Your task to perform on an android device: Search for seafood restaurants on Google Maps Image 0: 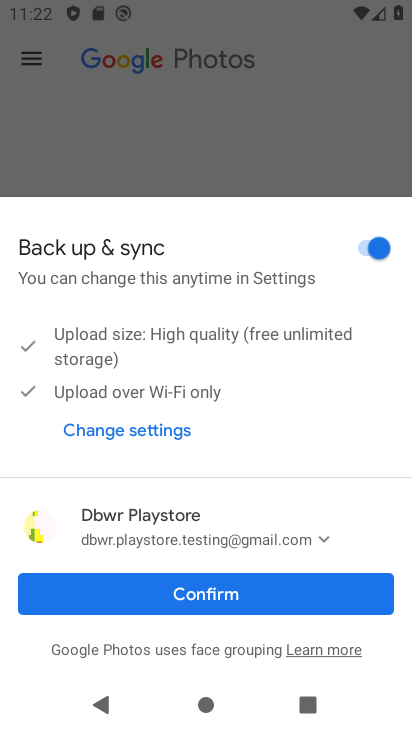
Step 0: press home button
Your task to perform on an android device: Search for seafood restaurants on Google Maps Image 1: 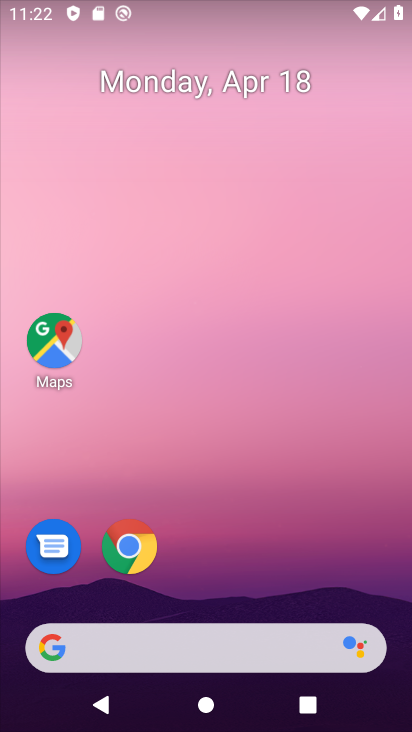
Step 1: click (50, 344)
Your task to perform on an android device: Search for seafood restaurants on Google Maps Image 2: 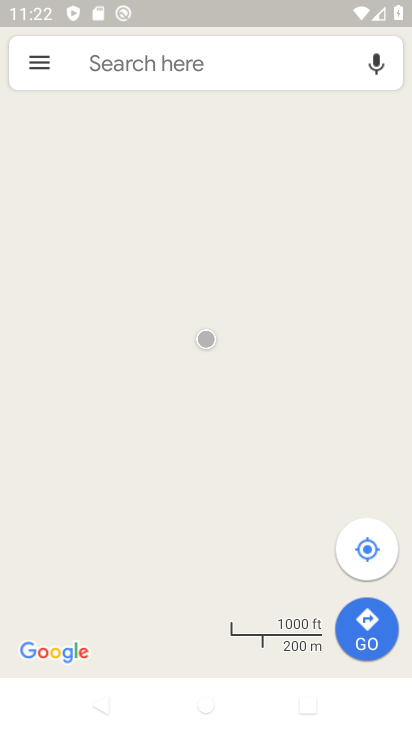
Step 2: click (115, 61)
Your task to perform on an android device: Search for seafood restaurants on Google Maps Image 3: 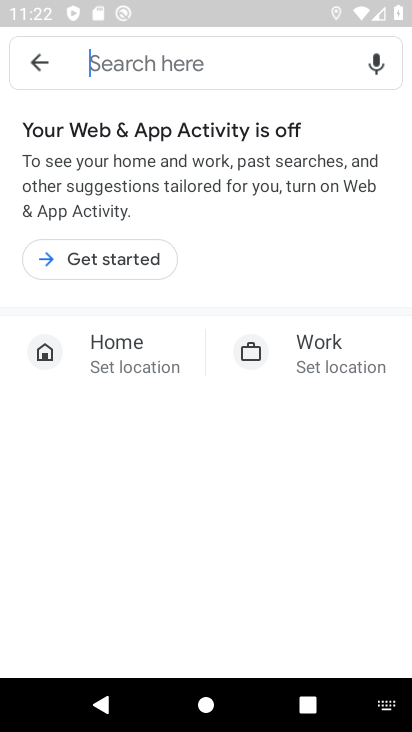
Step 3: type "seafood restaurants"
Your task to perform on an android device: Search for seafood restaurants on Google Maps Image 4: 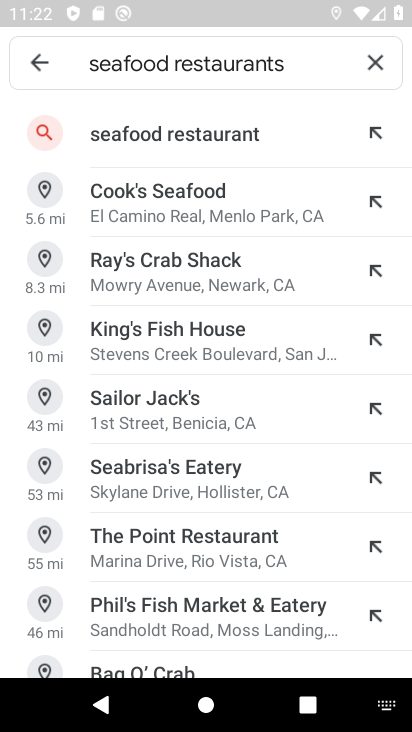
Step 4: click (173, 136)
Your task to perform on an android device: Search for seafood restaurants on Google Maps Image 5: 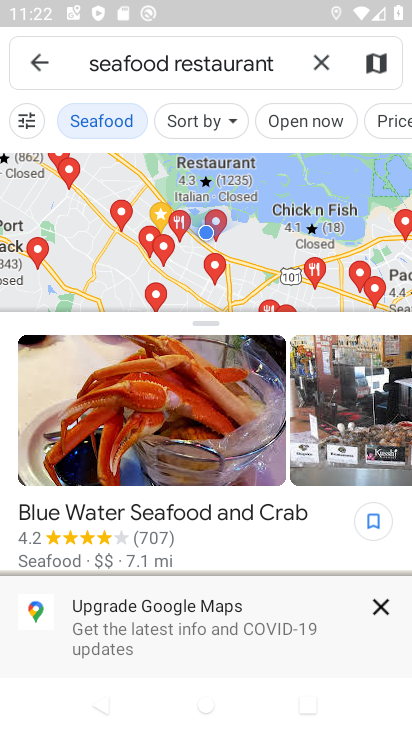
Step 5: task complete